Your task to perform on an android device: turn on data saver in the chrome app Image 0: 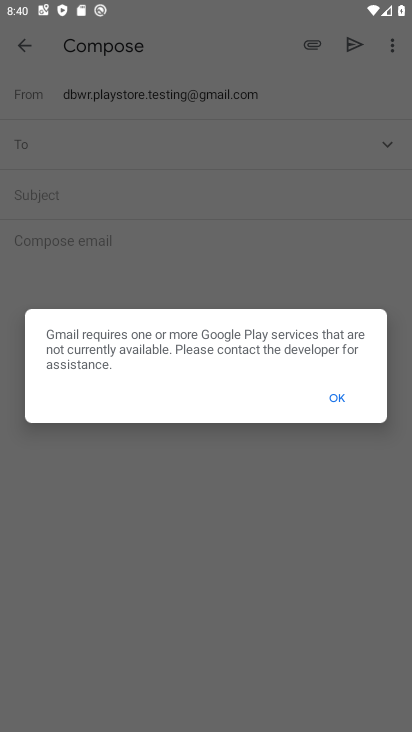
Step 0: press home button
Your task to perform on an android device: turn on data saver in the chrome app Image 1: 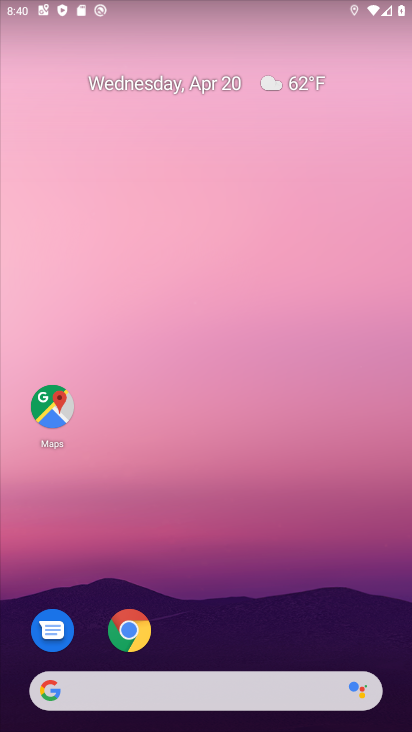
Step 1: drag from (181, 650) to (380, 62)
Your task to perform on an android device: turn on data saver in the chrome app Image 2: 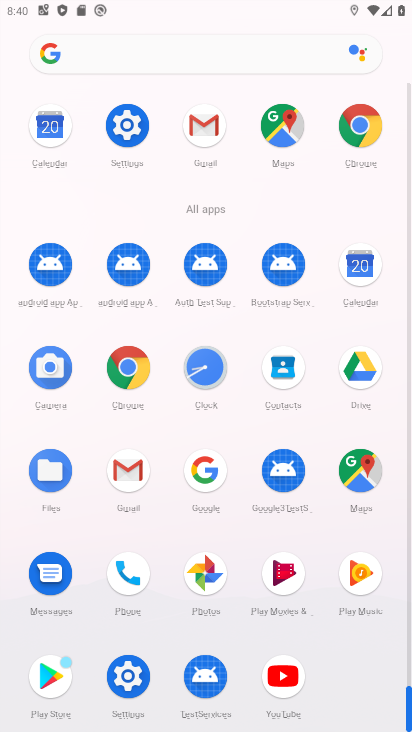
Step 2: click (123, 381)
Your task to perform on an android device: turn on data saver in the chrome app Image 3: 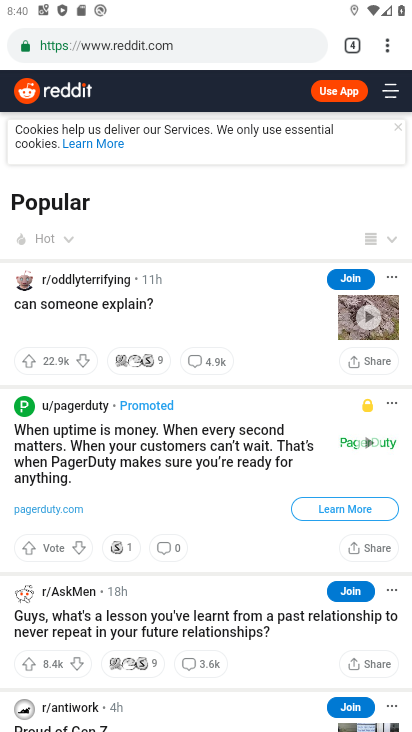
Step 3: click (387, 50)
Your task to perform on an android device: turn on data saver in the chrome app Image 4: 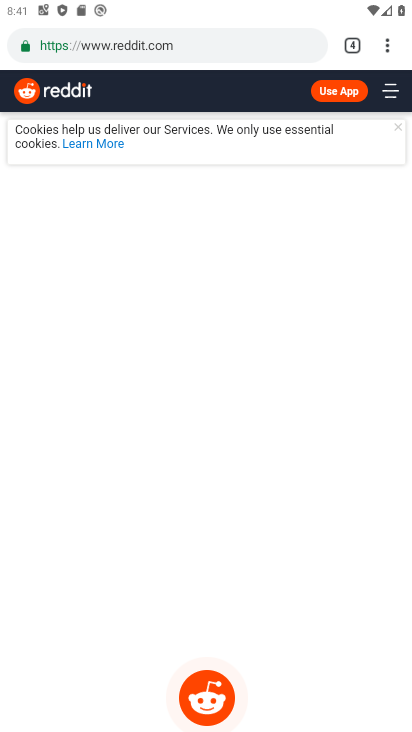
Step 4: click (387, 46)
Your task to perform on an android device: turn on data saver in the chrome app Image 5: 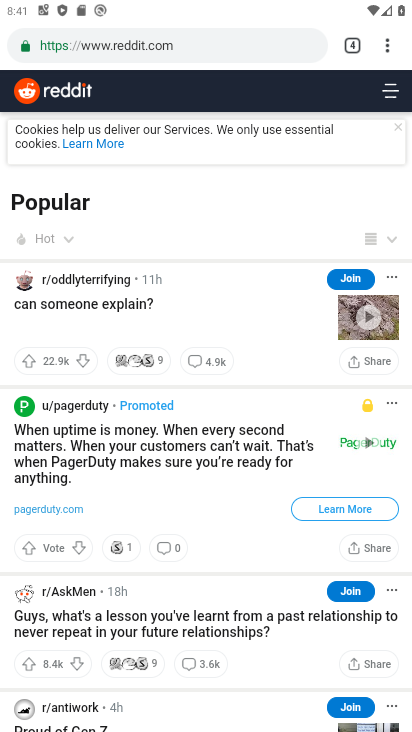
Step 5: click (389, 55)
Your task to perform on an android device: turn on data saver in the chrome app Image 6: 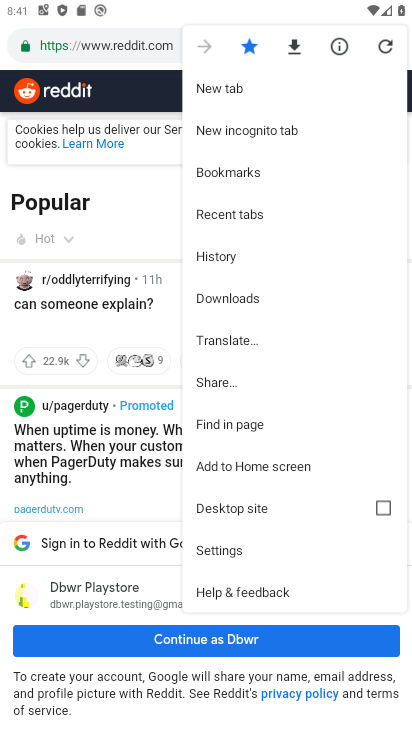
Step 6: click (231, 548)
Your task to perform on an android device: turn on data saver in the chrome app Image 7: 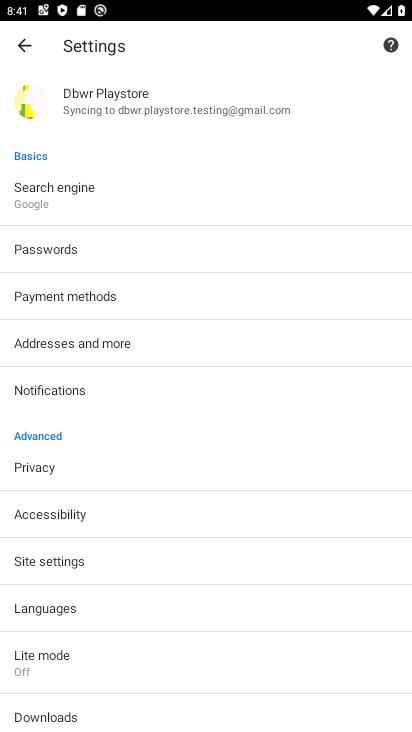
Step 7: click (77, 646)
Your task to perform on an android device: turn on data saver in the chrome app Image 8: 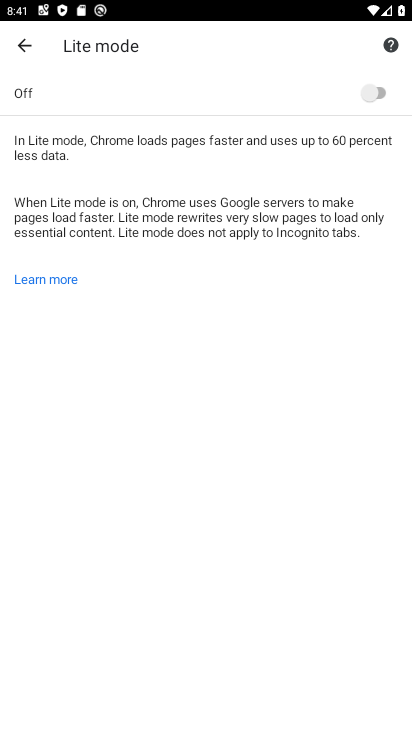
Step 8: click (379, 95)
Your task to perform on an android device: turn on data saver in the chrome app Image 9: 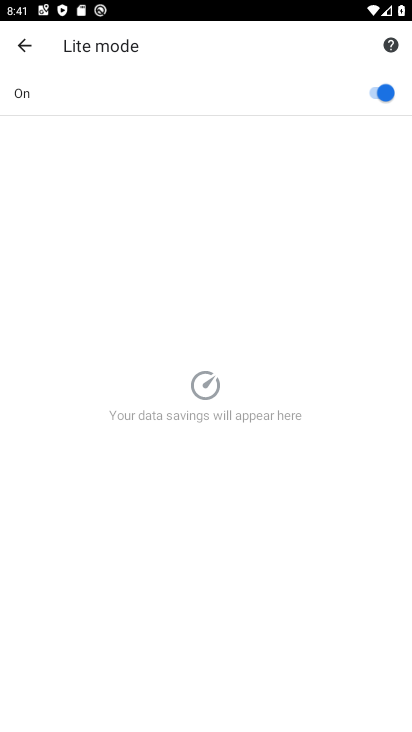
Step 9: task complete